Your task to perform on an android device: Show me productivity apps on the Play Store Image 0: 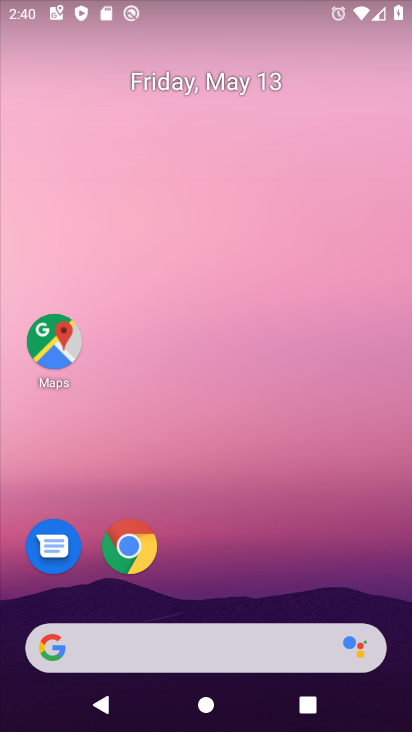
Step 0: drag from (251, 569) to (255, 100)
Your task to perform on an android device: Show me productivity apps on the Play Store Image 1: 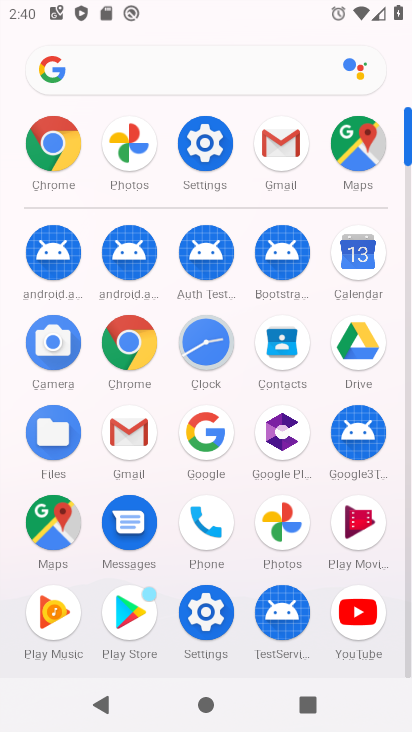
Step 1: click (133, 603)
Your task to perform on an android device: Show me productivity apps on the Play Store Image 2: 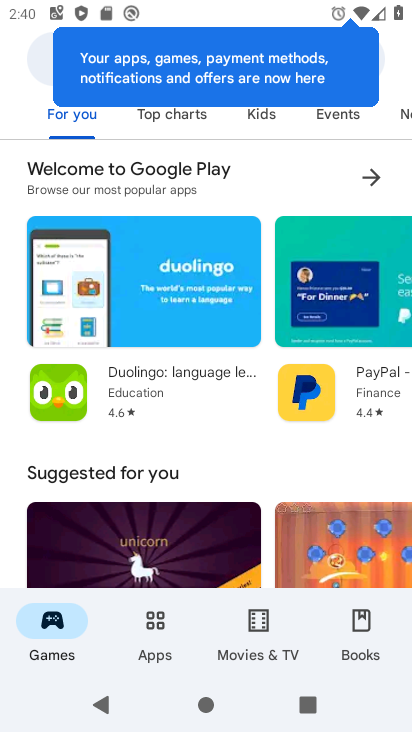
Step 2: drag from (224, 581) to (224, 313)
Your task to perform on an android device: Show me productivity apps on the Play Store Image 3: 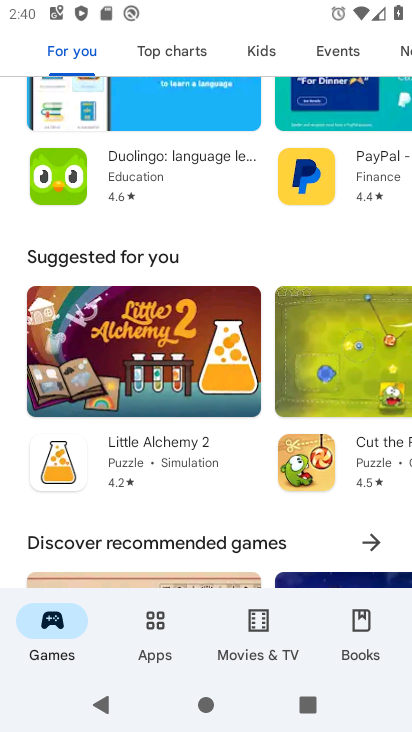
Step 3: click (155, 624)
Your task to perform on an android device: Show me productivity apps on the Play Store Image 4: 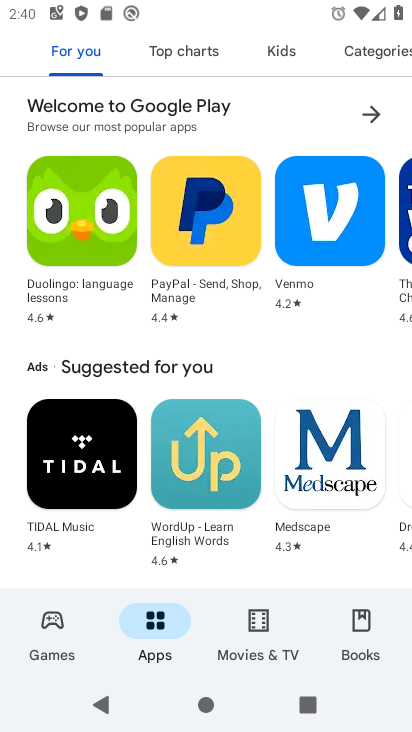
Step 4: drag from (237, 536) to (276, 162)
Your task to perform on an android device: Show me productivity apps on the Play Store Image 5: 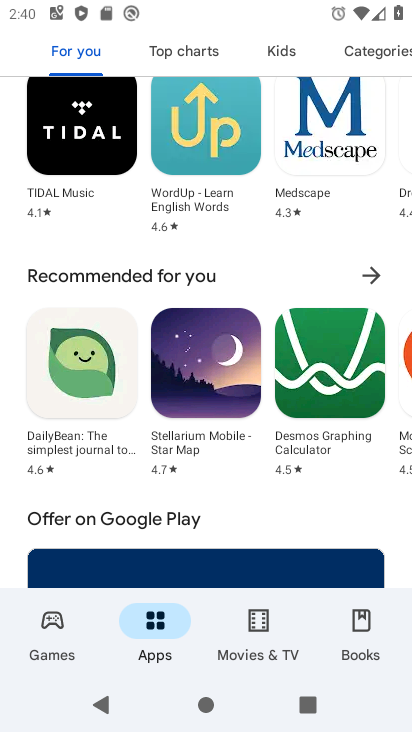
Step 5: drag from (290, 520) to (300, 123)
Your task to perform on an android device: Show me productivity apps on the Play Store Image 6: 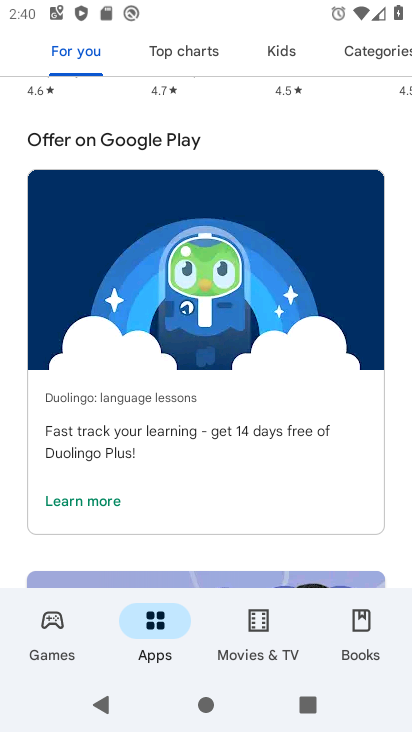
Step 6: drag from (295, 504) to (293, 107)
Your task to perform on an android device: Show me productivity apps on the Play Store Image 7: 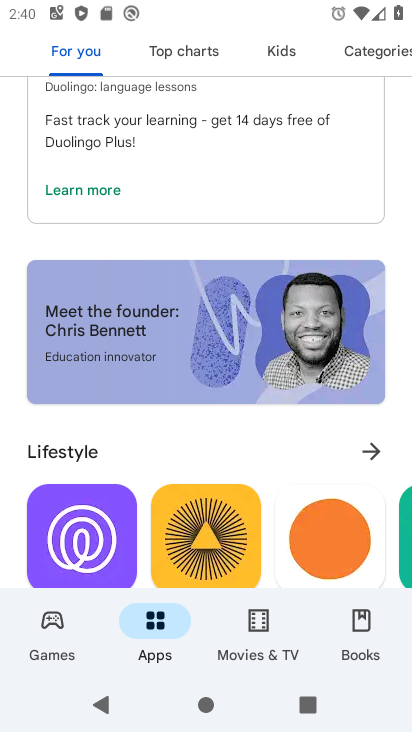
Step 7: drag from (260, 485) to (269, 123)
Your task to perform on an android device: Show me productivity apps on the Play Store Image 8: 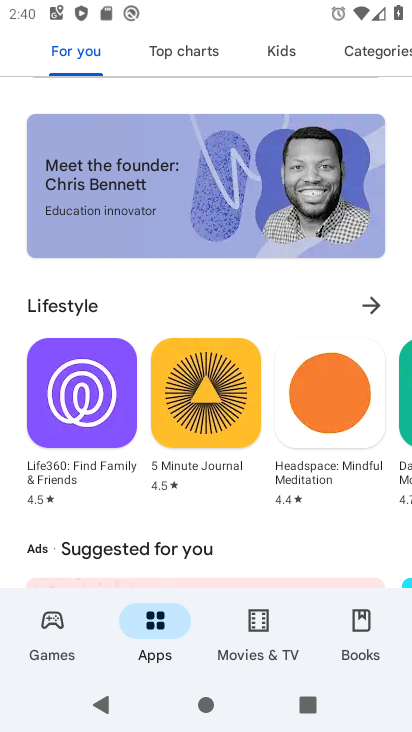
Step 8: drag from (215, 519) to (221, 165)
Your task to perform on an android device: Show me productivity apps on the Play Store Image 9: 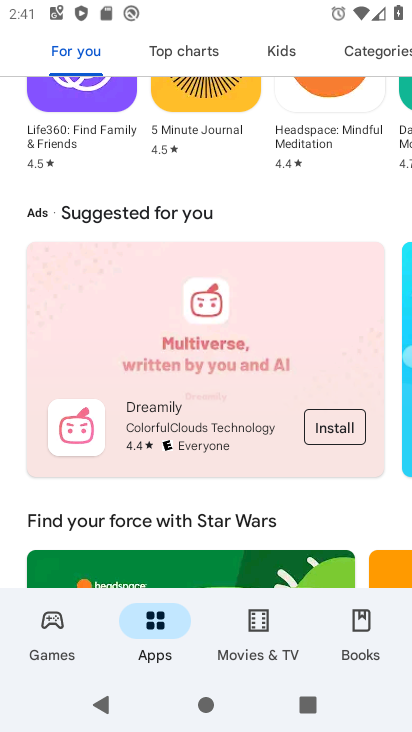
Step 9: drag from (208, 561) to (219, 101)
Your task to perform on an android device: Show me productivity apps on the Play Store Image 10: 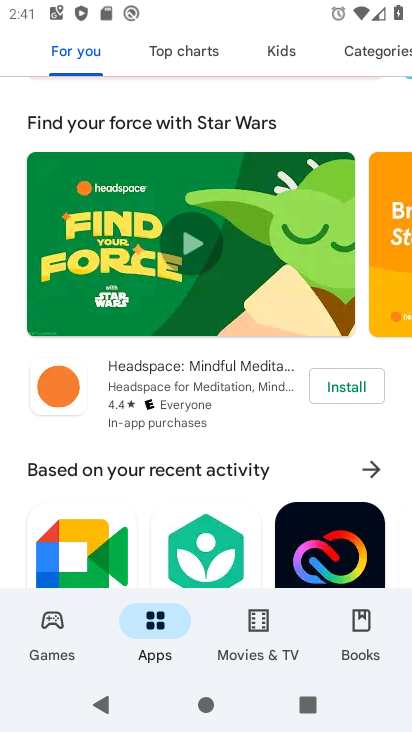
Step 10: drag from (179, 509) to (214, 87)
Your task to perform on an android device: Show me productivity apps on the Play Store Image 11: 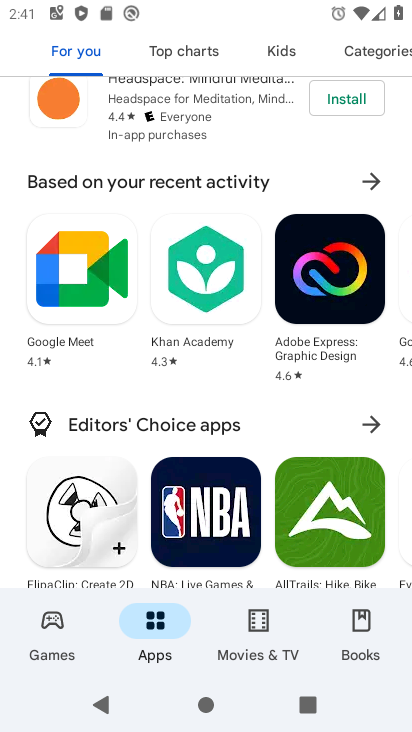
Step 11: drag from (176, 509) to (214, 98)
Your task to perform on an android device: Show me productivity apps on the Play Store Image 12: 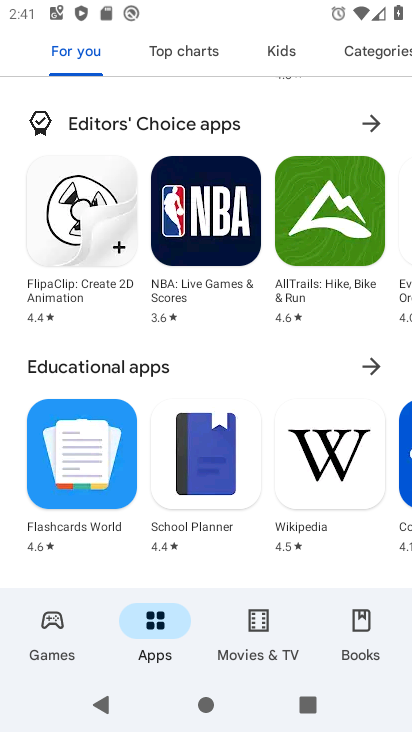
Step 12: drag from (175, 519) to (221, 169)
Your task to perform on an android device: Show me productivity apps on the Play Store Image 13: 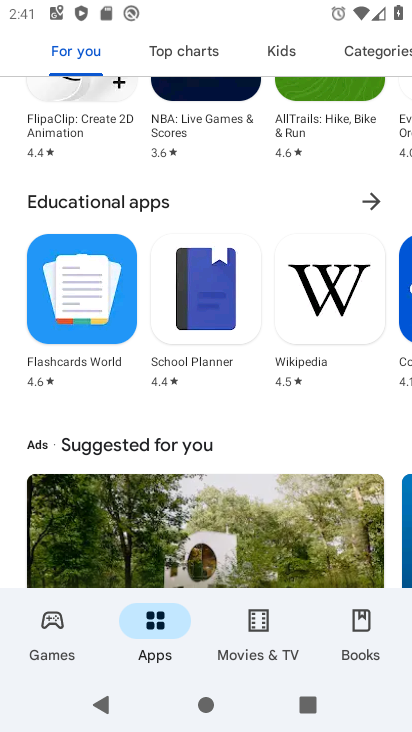
Step 13: drag from (208, 550) to (216, 139)
Your task to perform on an android device: Show me productivity apps on the Play Store Image 14: 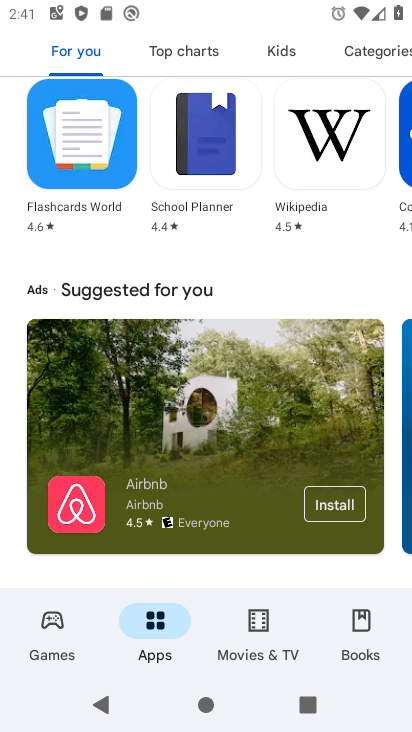
Step 14: drag from (201, 560) to (219, 142)
Your task to perform on an android device: Show me productivity apps on the Play Store Image 15: 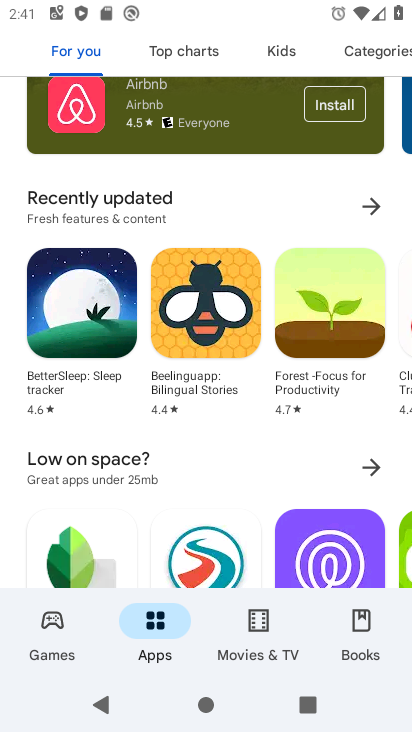
Step 15: drag from (238, 536) to (246, 161)
Your task to perform on an android device: Show me productivity apps on the Play Store Image 16: 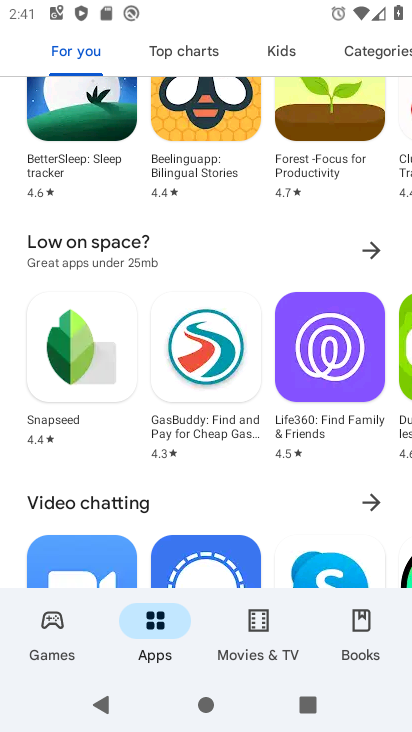
Step 16: drag from (253, 532) to (267, 204)
Your task to perform on an android device: Show me productivity apps on the Play Store Image 17: 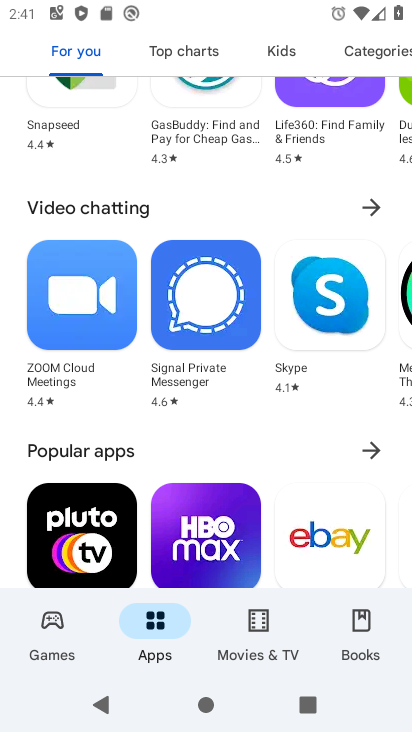
Step 17: drag from (168, 570) to (238, 159)
Your task to perform on an android device: Show me productivity apps on the Play Store Image 18: 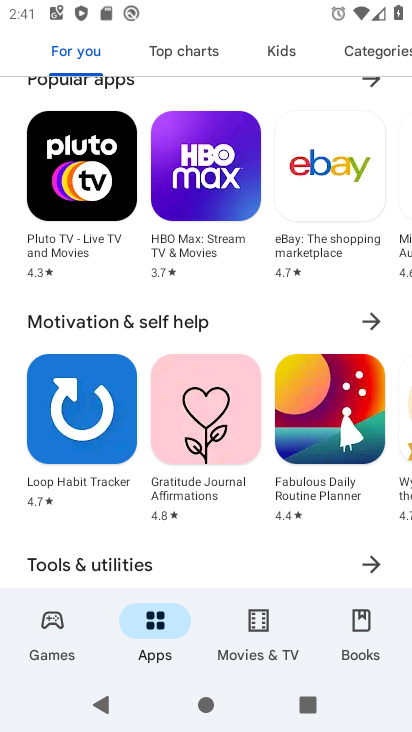
Step 18: drag from (150, 563) to (206, 149)
Your task to perform on an android device: Show me productivity apps on the Play Store Image 19: 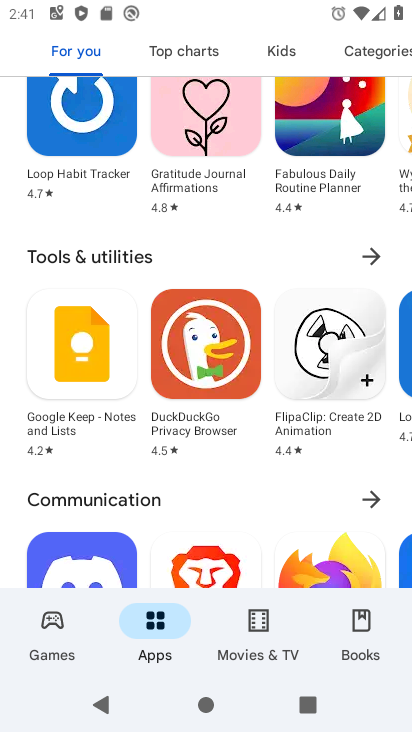
Step 19: drag from (234, 548) to (212, 167)
Your task to perform on an android device: Show me productivity apps on the Play Store Image 20: 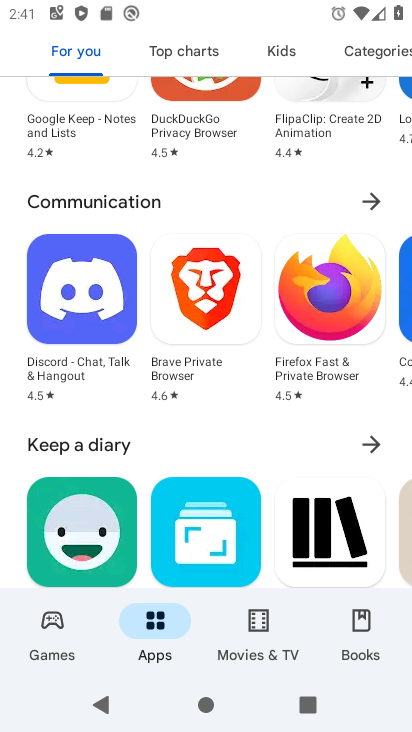
Step 20: drag from (252, 571) to (239, 175)
Your task to perform on an android device: Show me productivity apps on the Play Store Image 21: 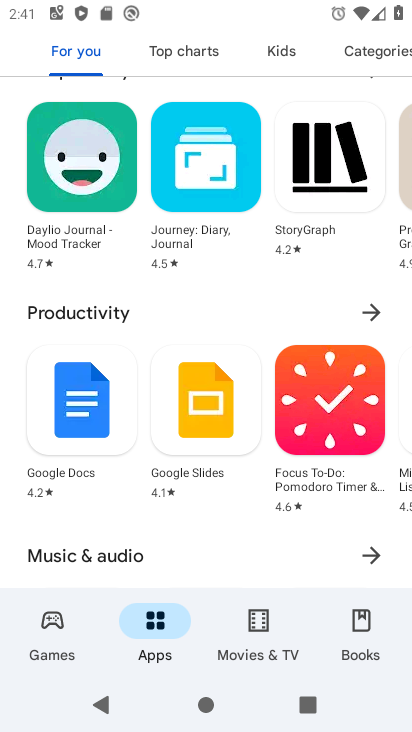
Step 21: drag from (238, 520) to (230, 139)
Your task to perform on an android device: Show me productivity apps on the Play Store Image 22: 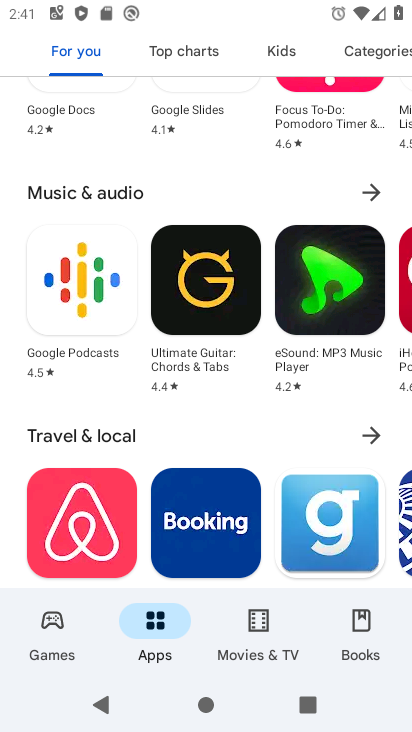
Step 22: click (231, 198)
Your task to perform on an android device: Show me productivity apps on the Play Store Image 23: 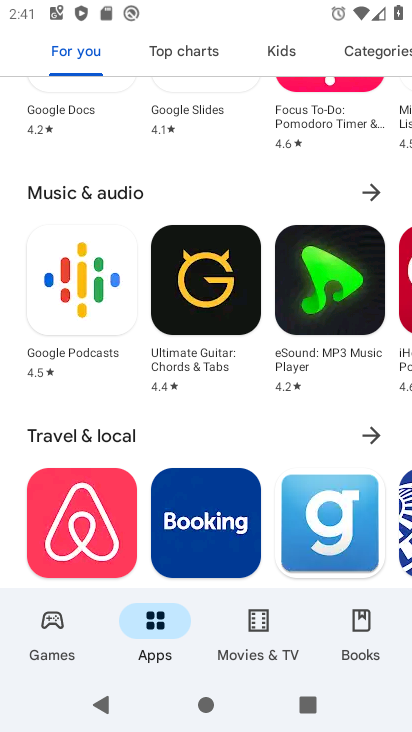
Step 23: task complete